Your task to perform on an android device: uninstall "PlayWell" Image 0: 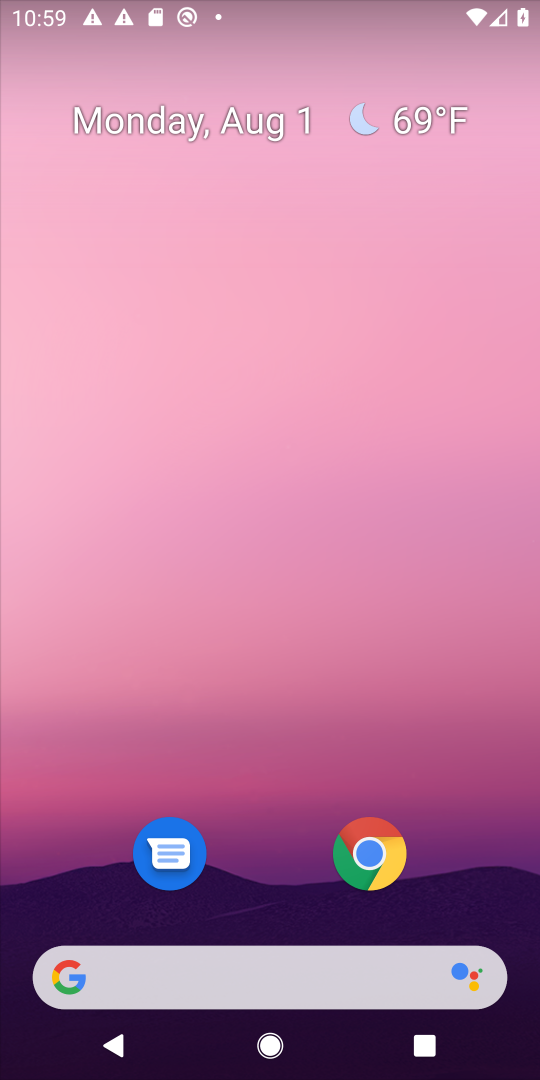
Step 0: drag from (230, 682) to (150, 0)
Your task to perform on an android device: uninstall "PlayWell" Image 1: 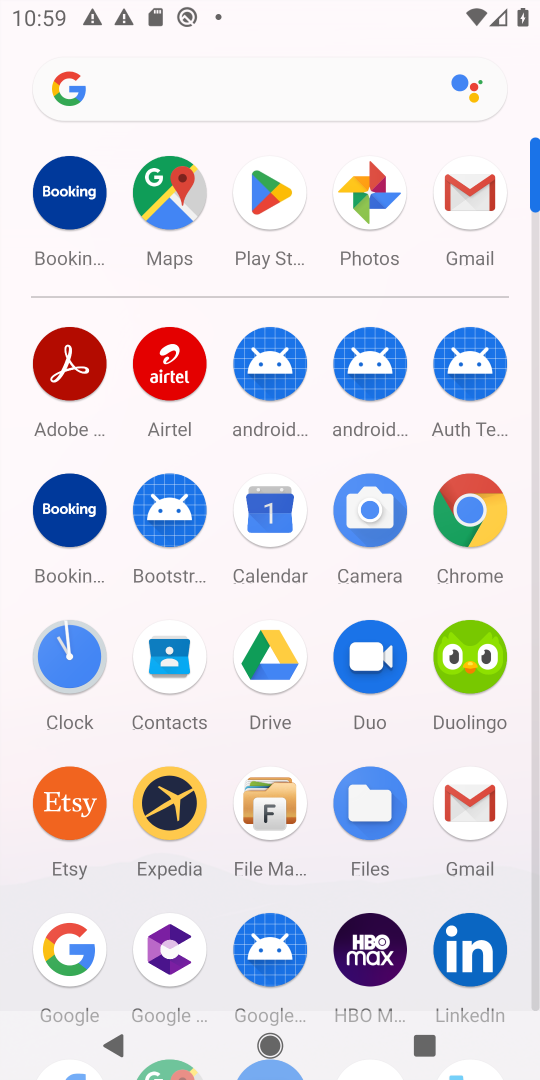
Step 1: click (262, 176)
Your task to perform on an android device: uninstall "PlayWell" Image 2: 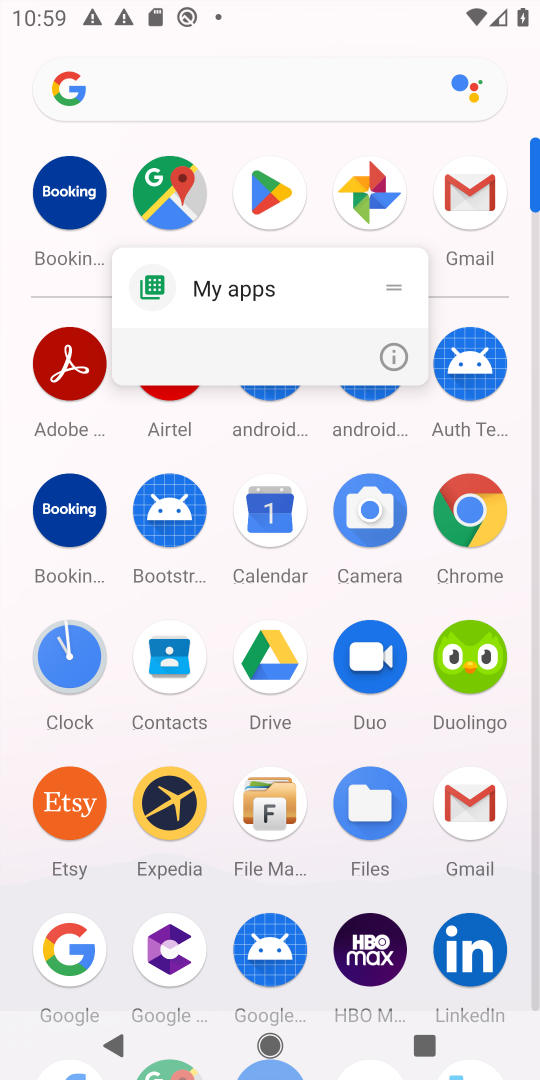
Step 2: click (414, 350)
Your task to perform on an android device: uninstall "PlayWell" Image 3: 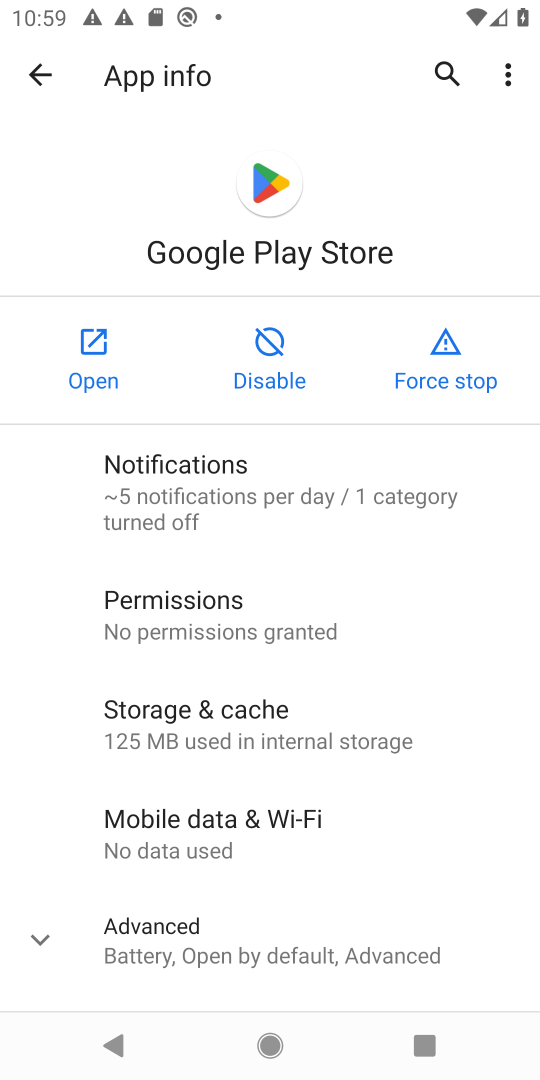
Step 3: click (90, 357)
Your task to perform on an android device: uninstall "PlayWell" Image 4: 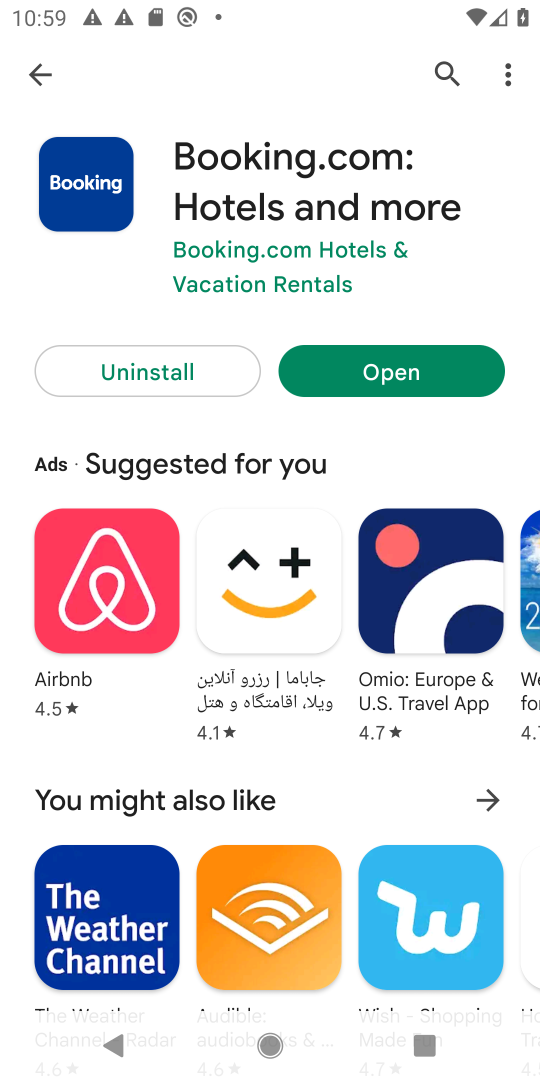
Step 4: drag from (275, 309) to (252, 891)
Your task to perform on an android device: uninstall "PlayWell" Image 5: 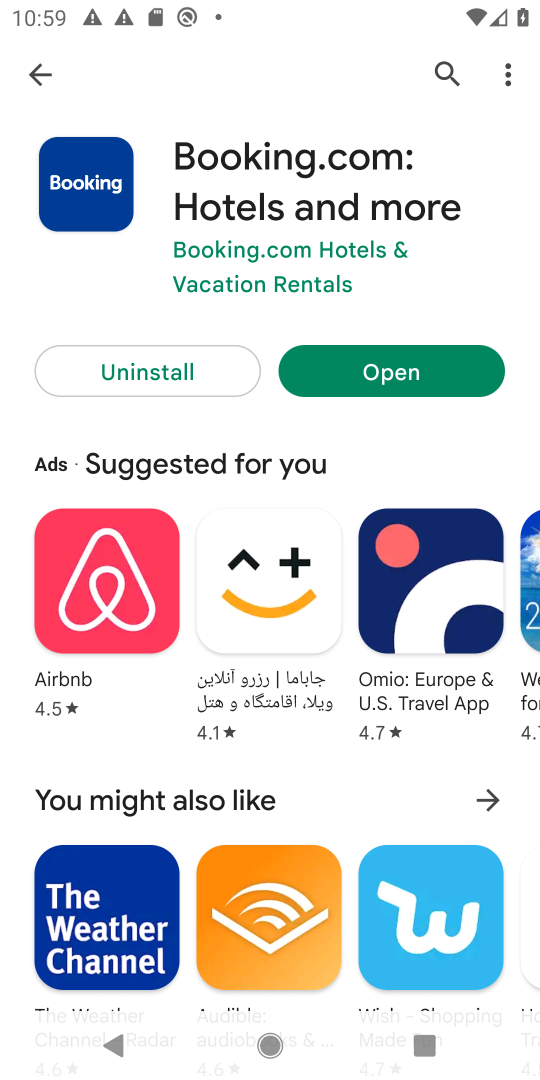
Step 5: click (443, 65)
Your task to perform on an android device: uninstall "PlayWell" Image 6: 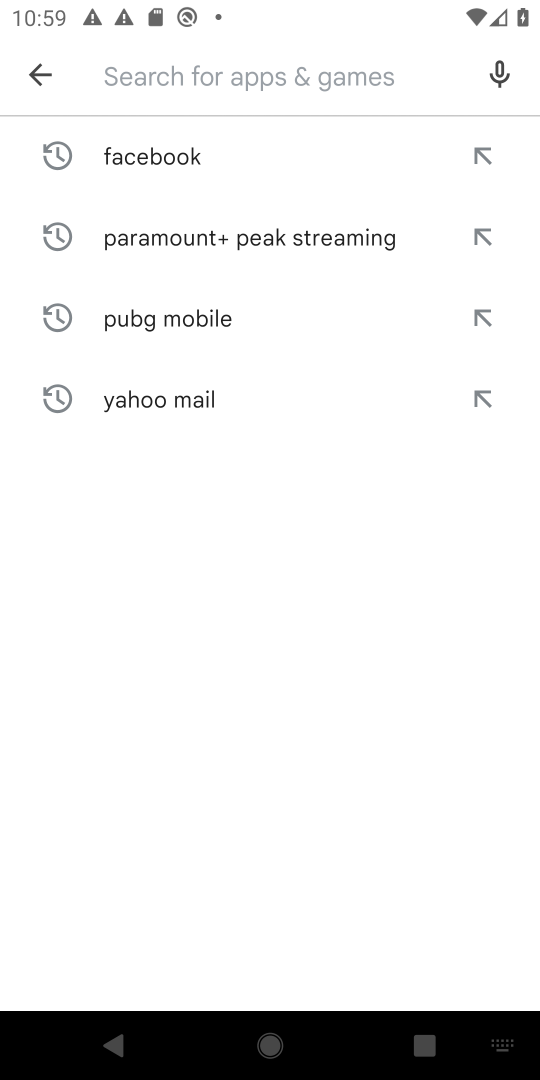
Step 6: type "PlayWell"
Your task to perform on an android device: uninstall "PlayWell" Image 7: 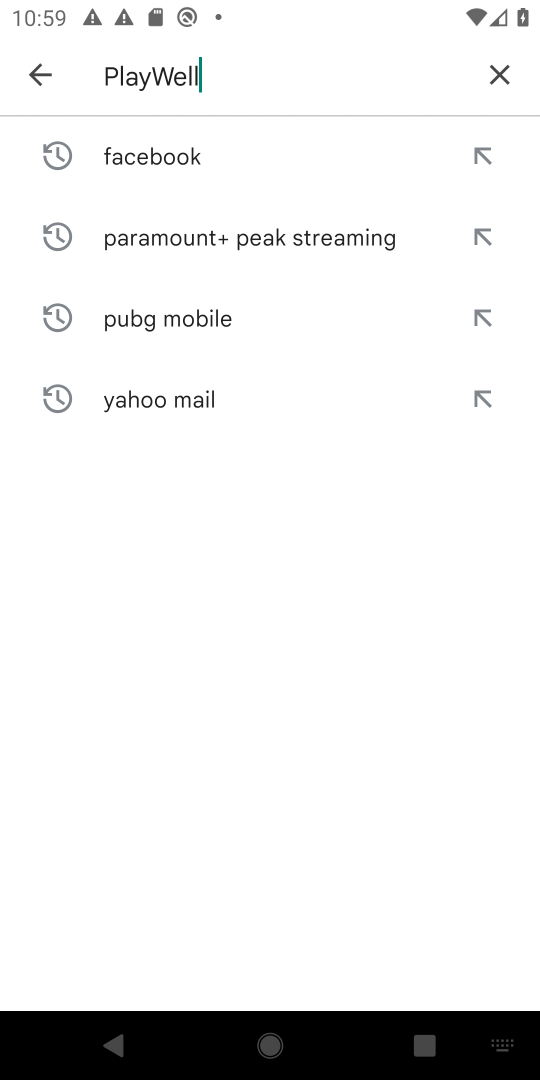
Step 7: type ""
Your task to perform on an android device: uninstall "PlayWell" Image 8: 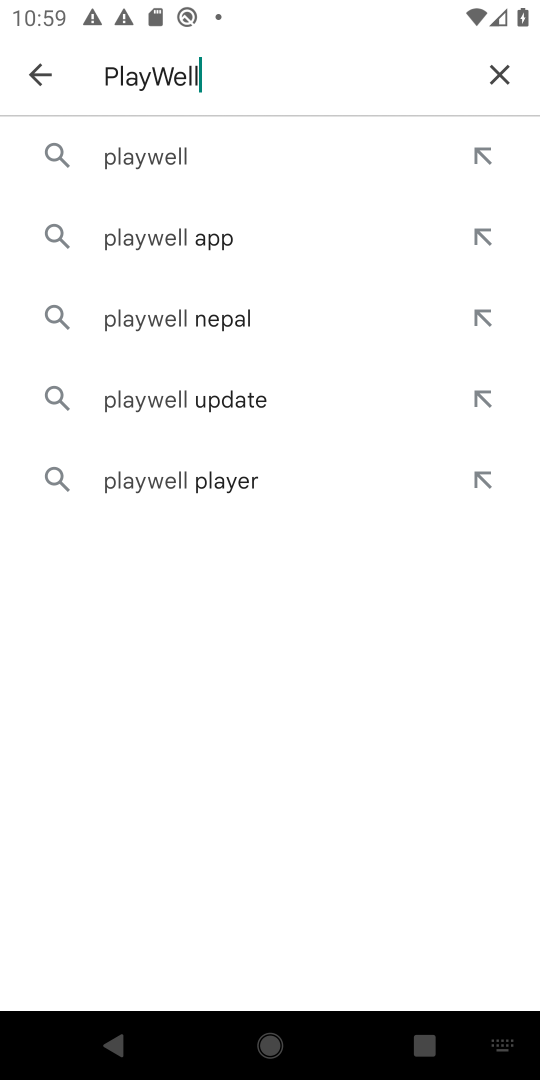
Step 8: click (170, 146)
Your task to perform on an android device: uninstall "PlayWell" Image 9: 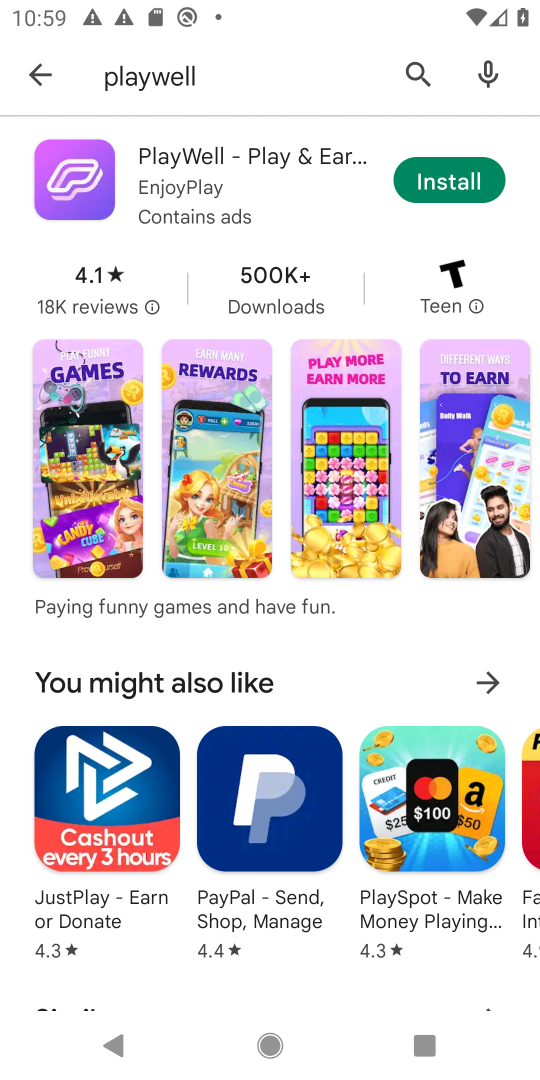
Step 9: click (156, 182)
Your task to perform on an android device: uninstall "PlayWell" Image 10: 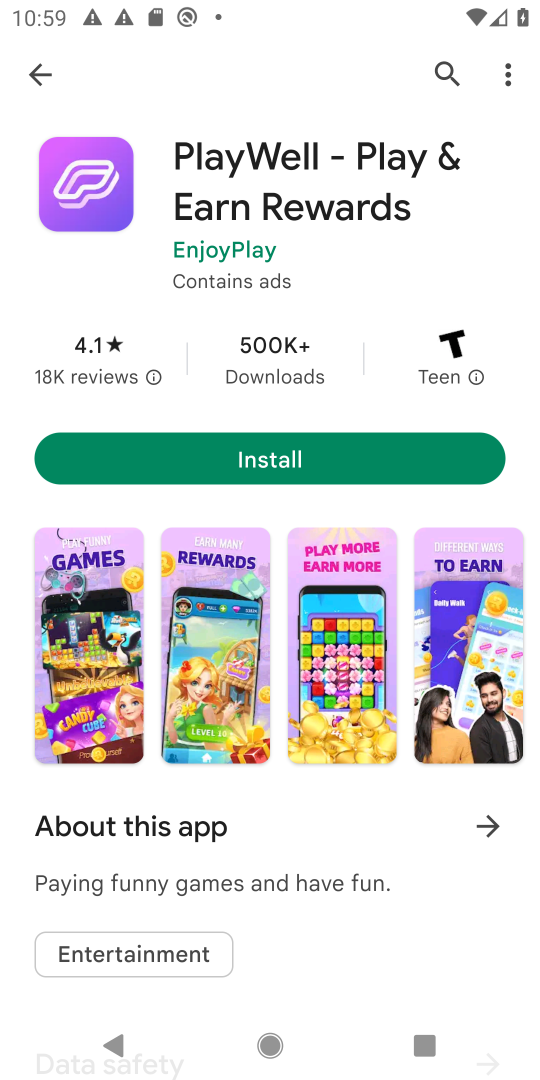
Step 10: task complete